Your task to perform on an android device: Open Maps and search for coffee Image 0: 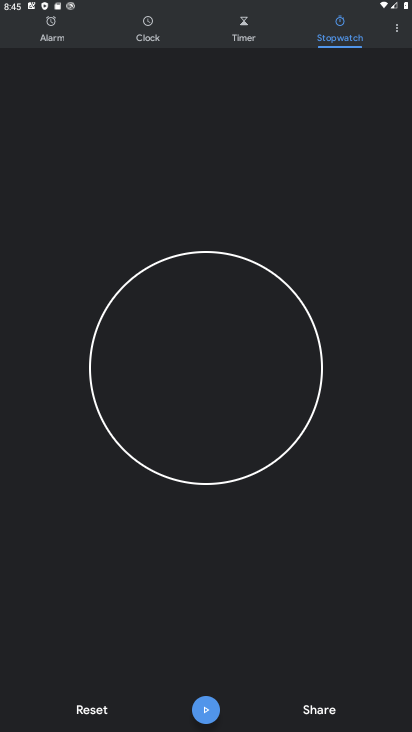
Step 0: press home button
Your task to perform on an android device: Open Maps and search for coffee Image 1: 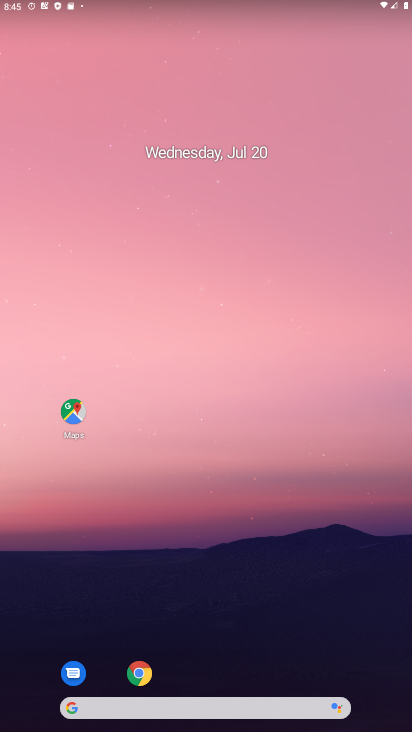
Step 1: drag from (364, 675) to (192, 152)
Your task to perform on an android device: Open Maps and search for coffee Image 2: 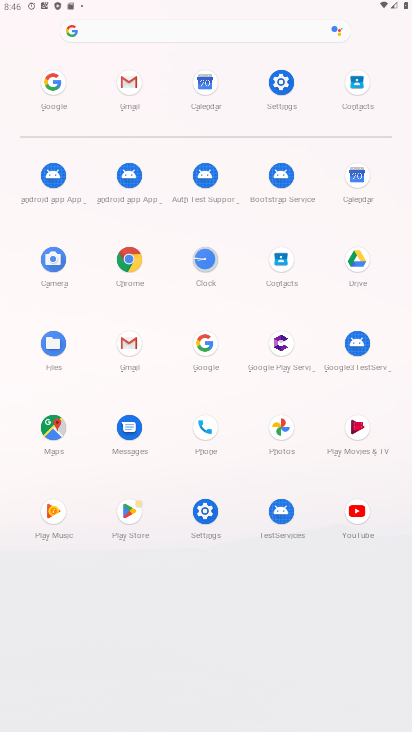
Step 2: click (52, 441)
Your task to perform on an android device: Open Maps and search for coffee Image 3: 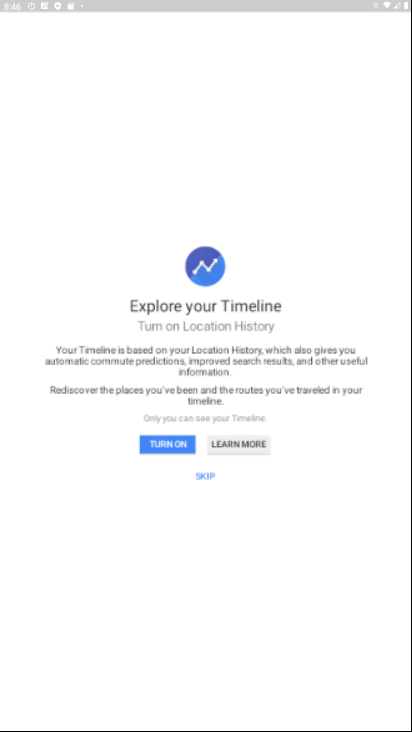
Step 3: press back button
Your task to perform on an android device: Open Maps and search for coffee Image 4: 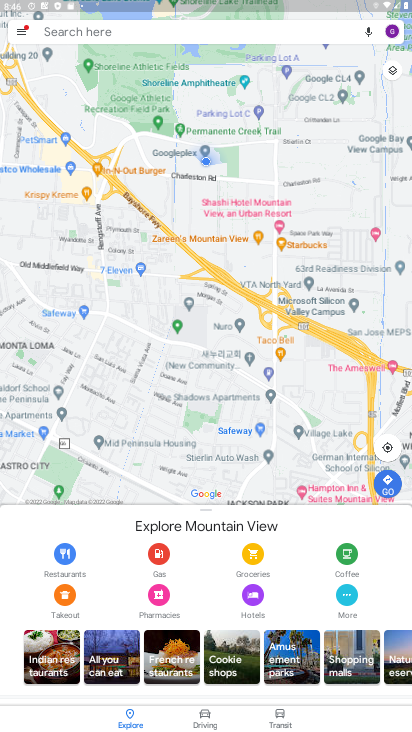
Step 4: click (78, 32)
Your task to perform on an android device: Open Maps and search for coffee Image 5: 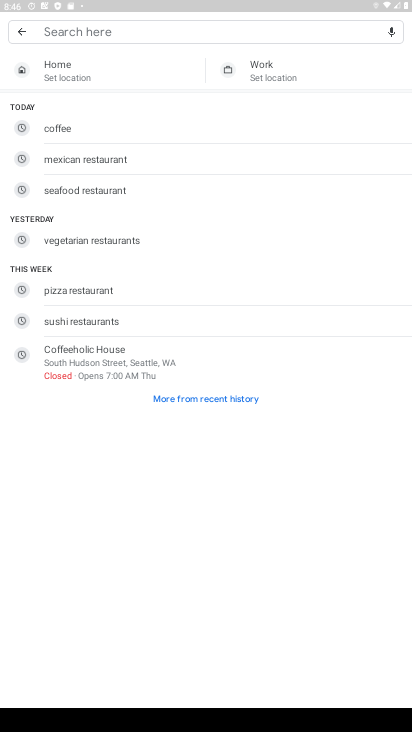
Step 5: click (77, 136)
Your task to perform on an android device: Open Maps and search for coffee Image 6: 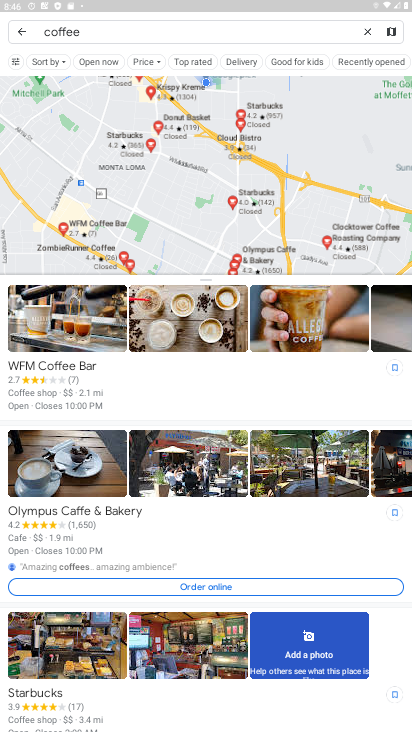
Step 6: task complete